Your task to perform on an android device: Go to wifi settings Image 0: 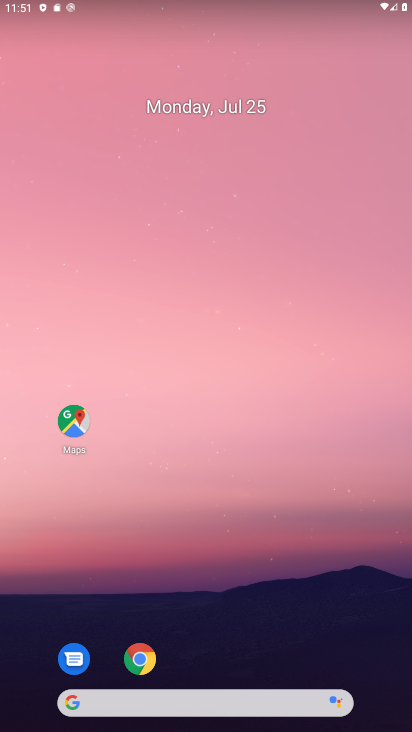
Step 0: press home button
Your task to perform on an android device: Go to wifi settings Image 1: 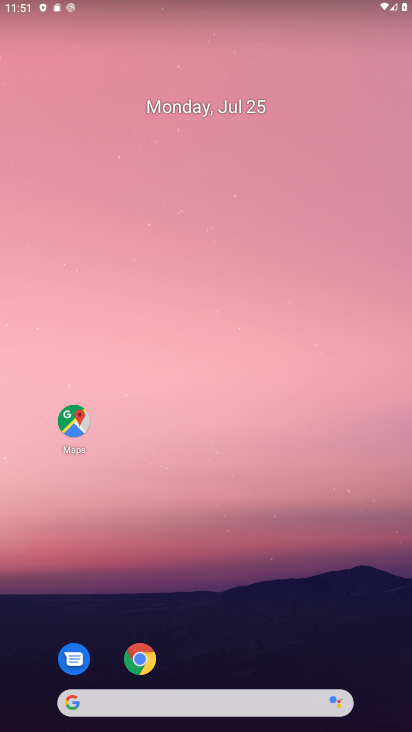
Step 1: drag from (283, 600) to (302, 254)
Your task to perform on an android device: Go to wifi settings Image 2: 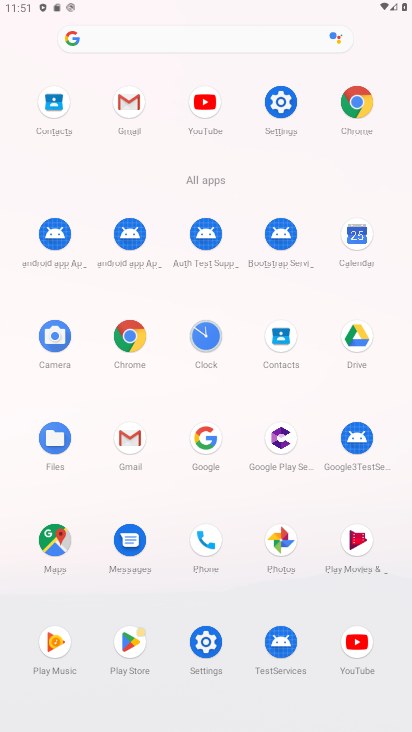
Step 2: drag from (387, 5) to (386, 354)
Your task to perform on an android device: Go to wifi settings Image 3: 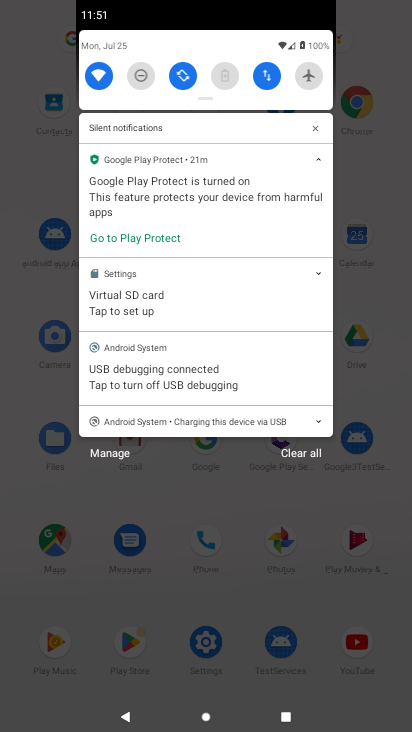
Step 3: click (87, 69)
Your task to perform on an android device: Go to wifi settings Image 4: 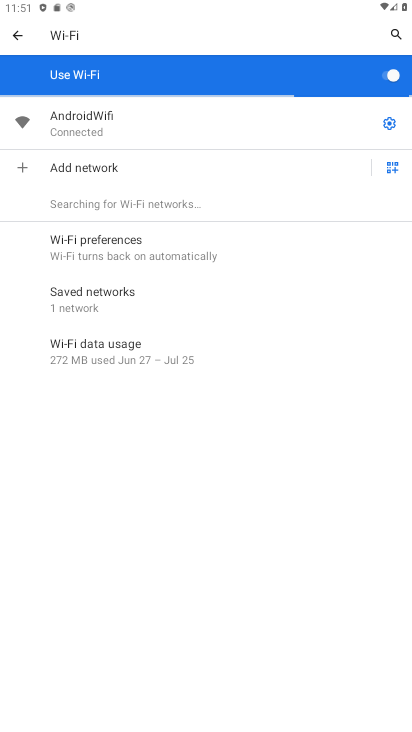
Step 4: task complete